Your task to perform on an android device: make emails show in primary in the gmail app Image 0: 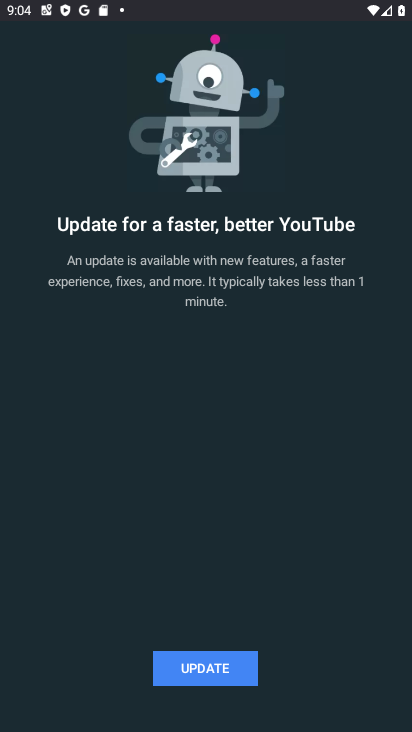
Step 0: press home button
Your task to perform on an android device: make emails show in primary in the gmail app Image 1: 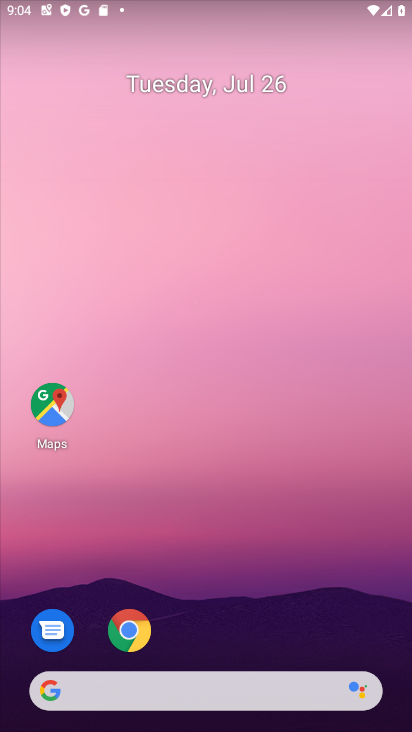
Step 1: drag from (265, 653) to (226, 183)
Your task to perform on an android device: make emails show in primary in the gmail app Image 2: 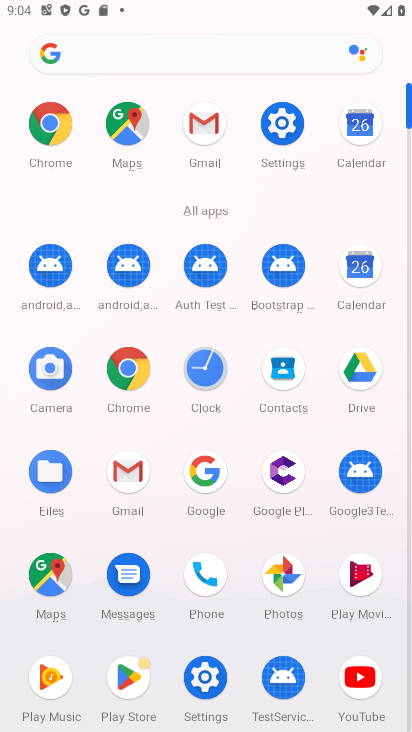
Step 2: click (132, 479)
Your task to perform on an android device: make emails show in primary in the gmail app Image 3: 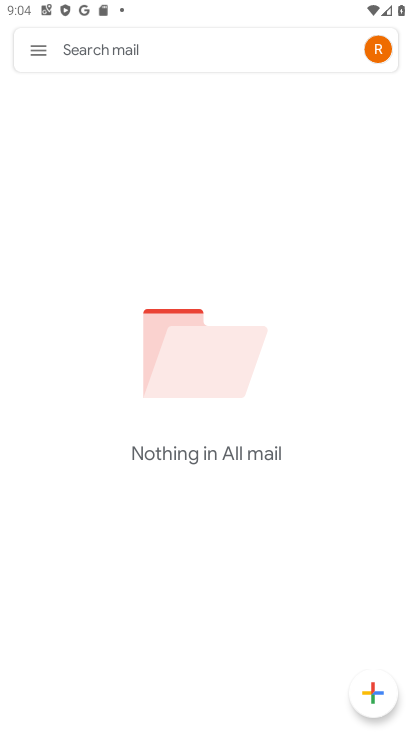
Step 3: click (37, 55)
Your task to perform on an android device: make emails show in primary in the gmail app Image 4: 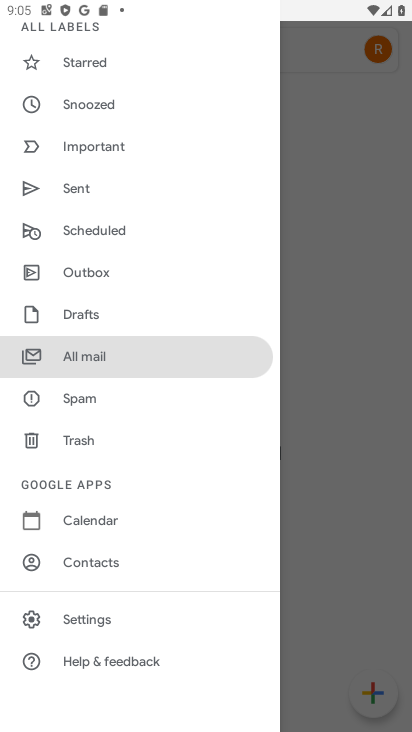
Step 4: click (104, 614)
Your task to perform on an android device: make emails show in primary in the gmail app Image 5: 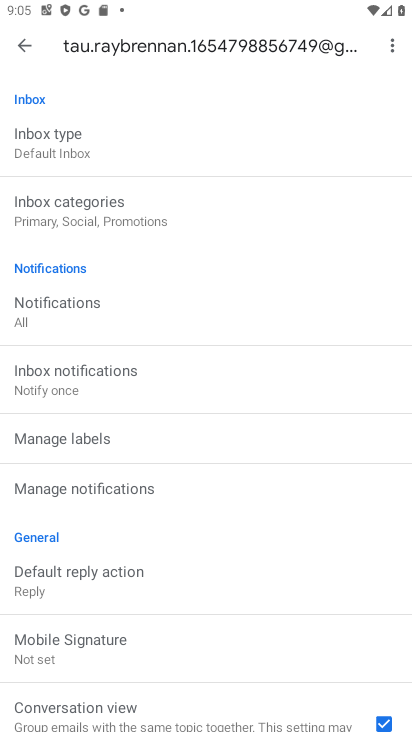
Step 5: task complete